Your task to perform on an android device: Go to Reddit.com Image 0: 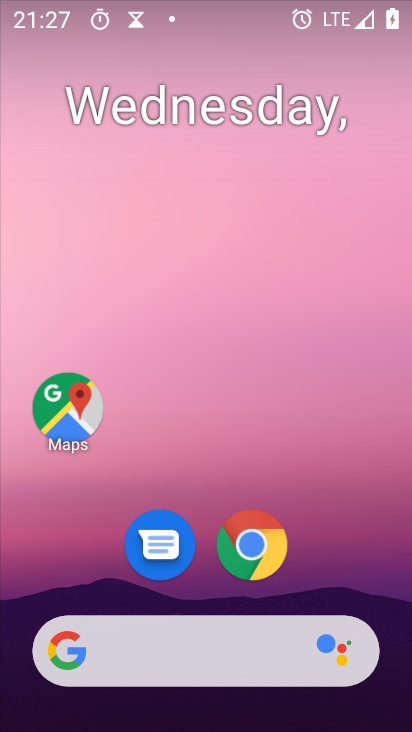
Step 0: click (252, 551)
Your task to perform on an android device: Go to Reddit.com Image 1: 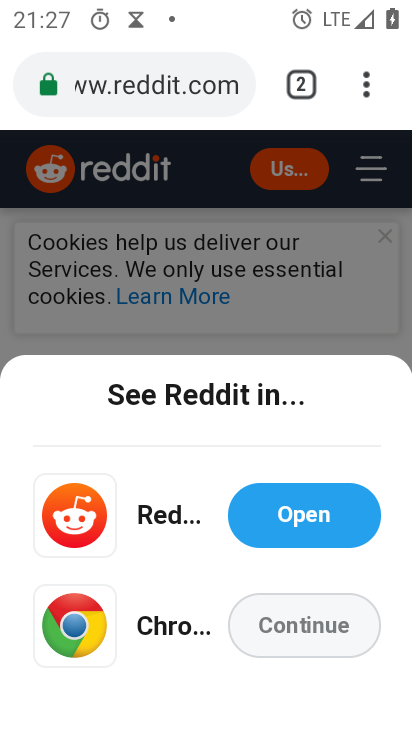
Step 1: task complete